Your task to perform on an android device: When is my next meeting? Image 0: 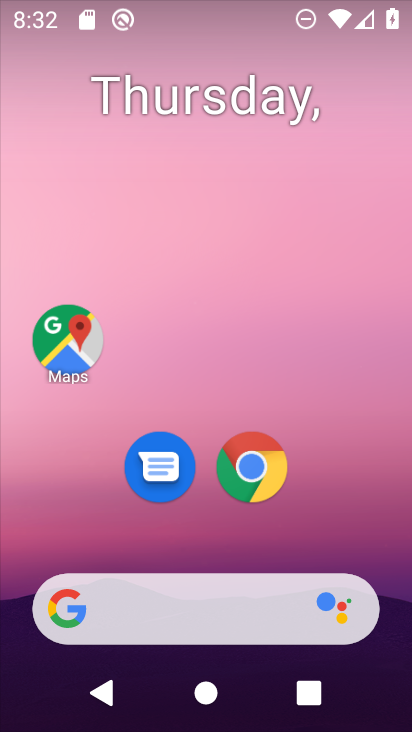
Step 0: drag from (346, 495) to (264, 58)
Your task to perform on an android device: When is my next meeting? Image 1: 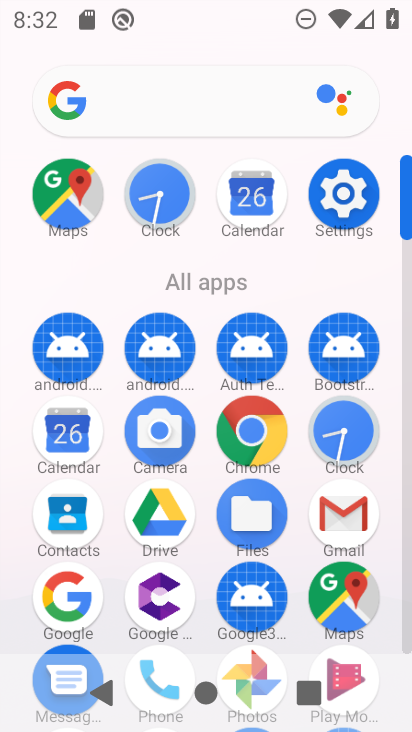
Step 1: click (62, 422)
Your task to perform on an android device: When is my next meeting? Image 2: 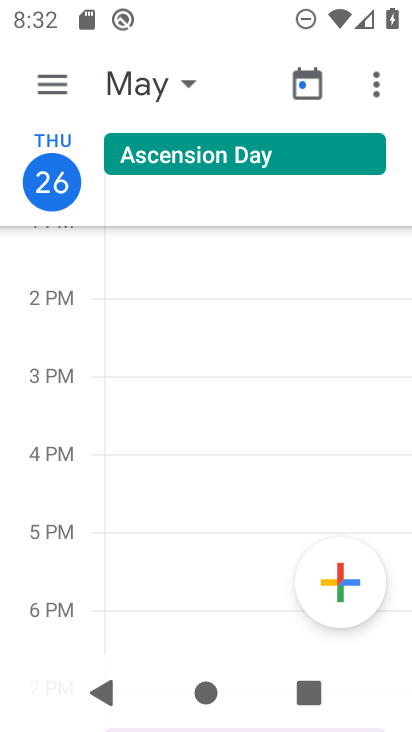
Step 2: task complete